Your task to perform on an android device: Go to Amazon Image 0: 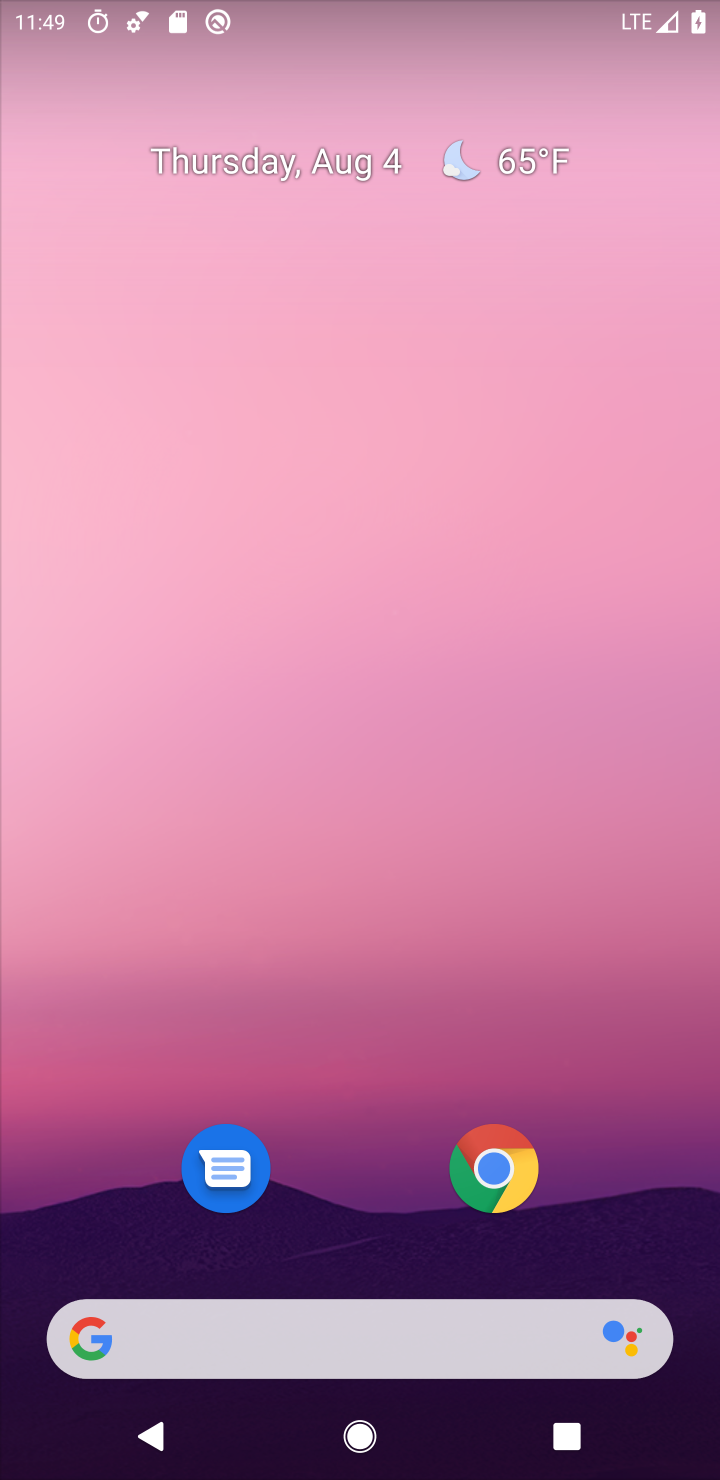
Step 0: press home button
Your task to perform on an android device: Go to Amazon Image 1: 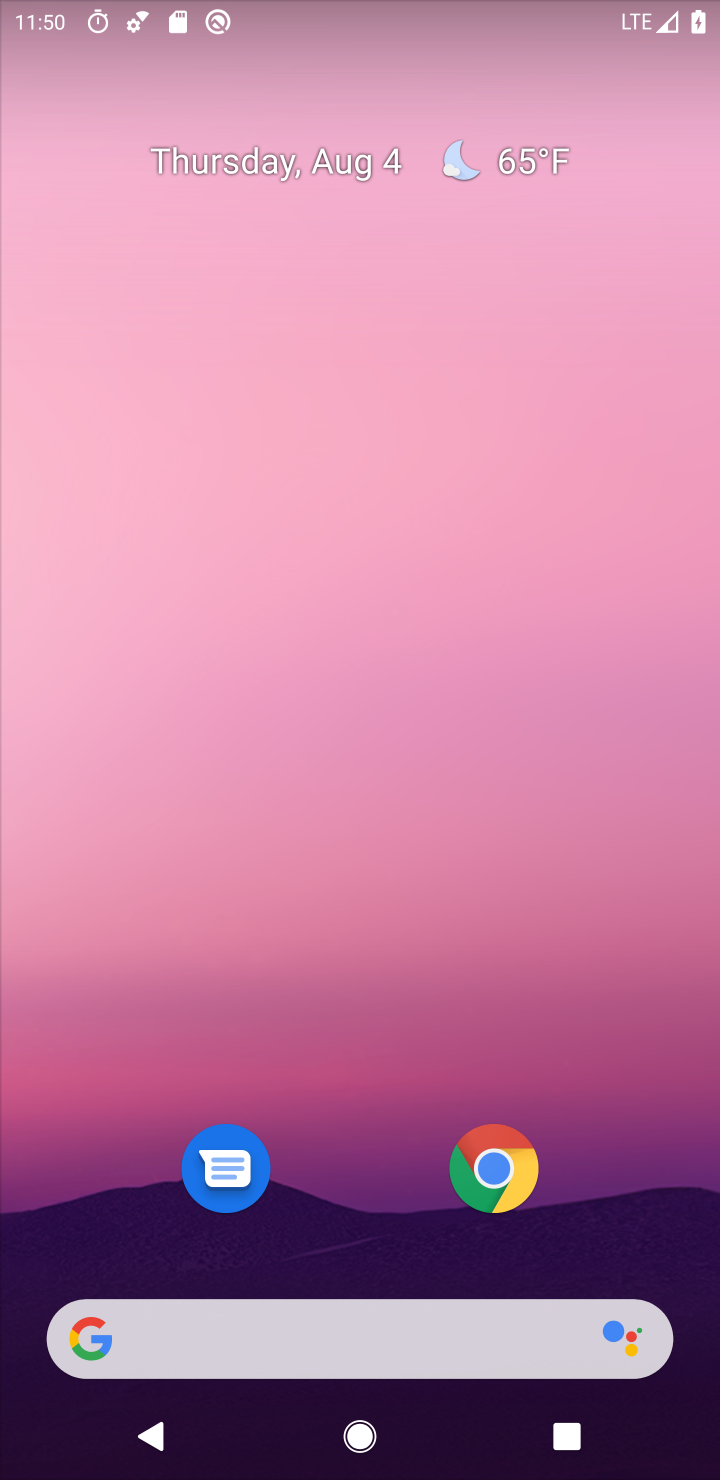
Step 1: click (487, 1181)
Your task to perform on an android device: Go to Amazon Image 2: 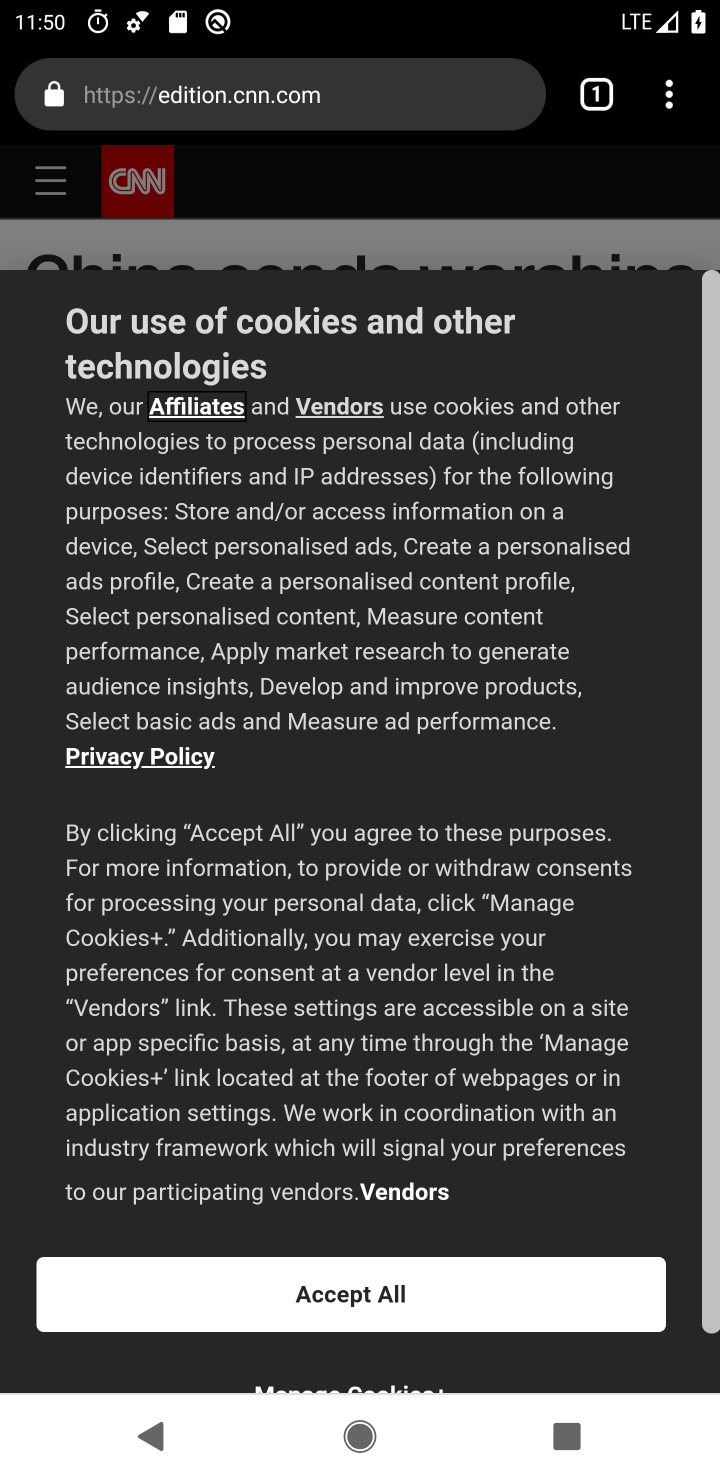
Step 2: click (335, 100)
Your task to perform on an android device: Go to Amazon Image 3: 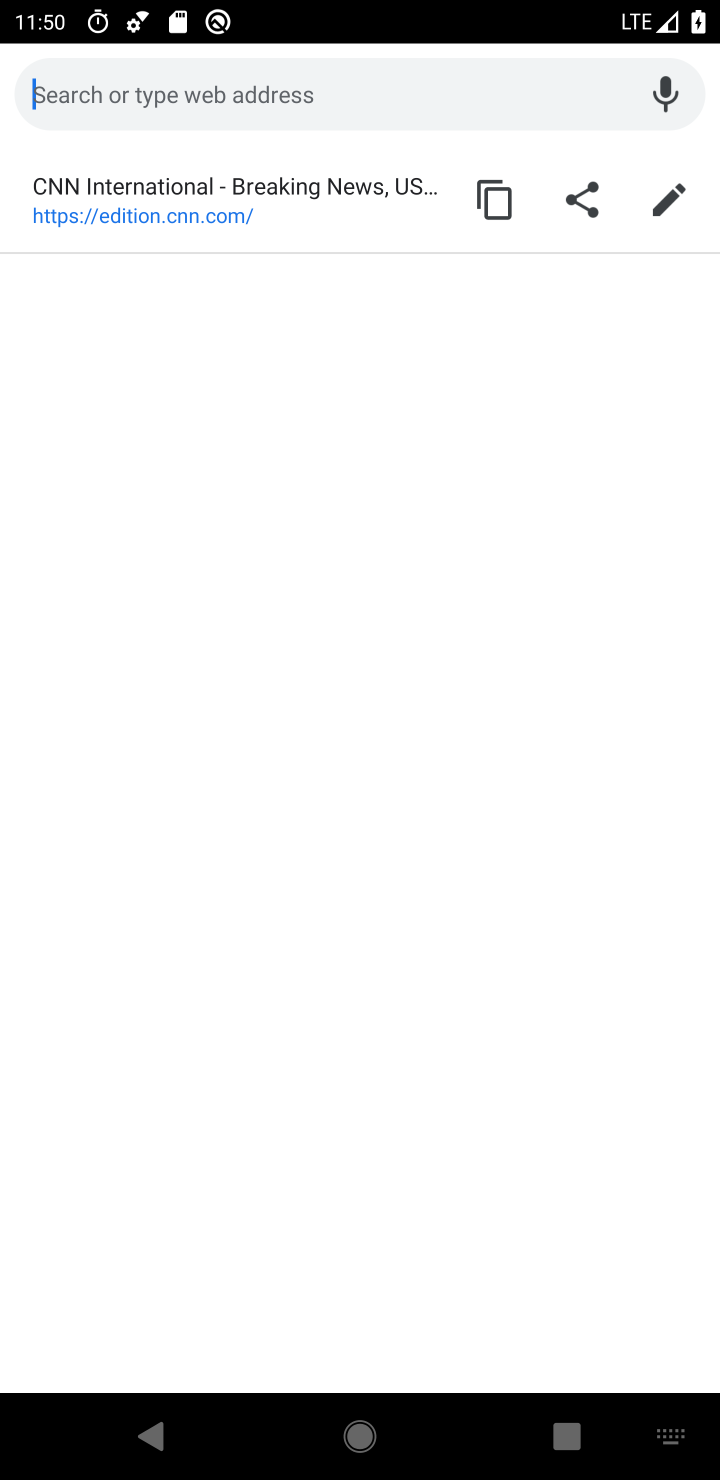
Step 3: type "amazon"
Your task to perform on an android device: Go to Amazon Image 4: 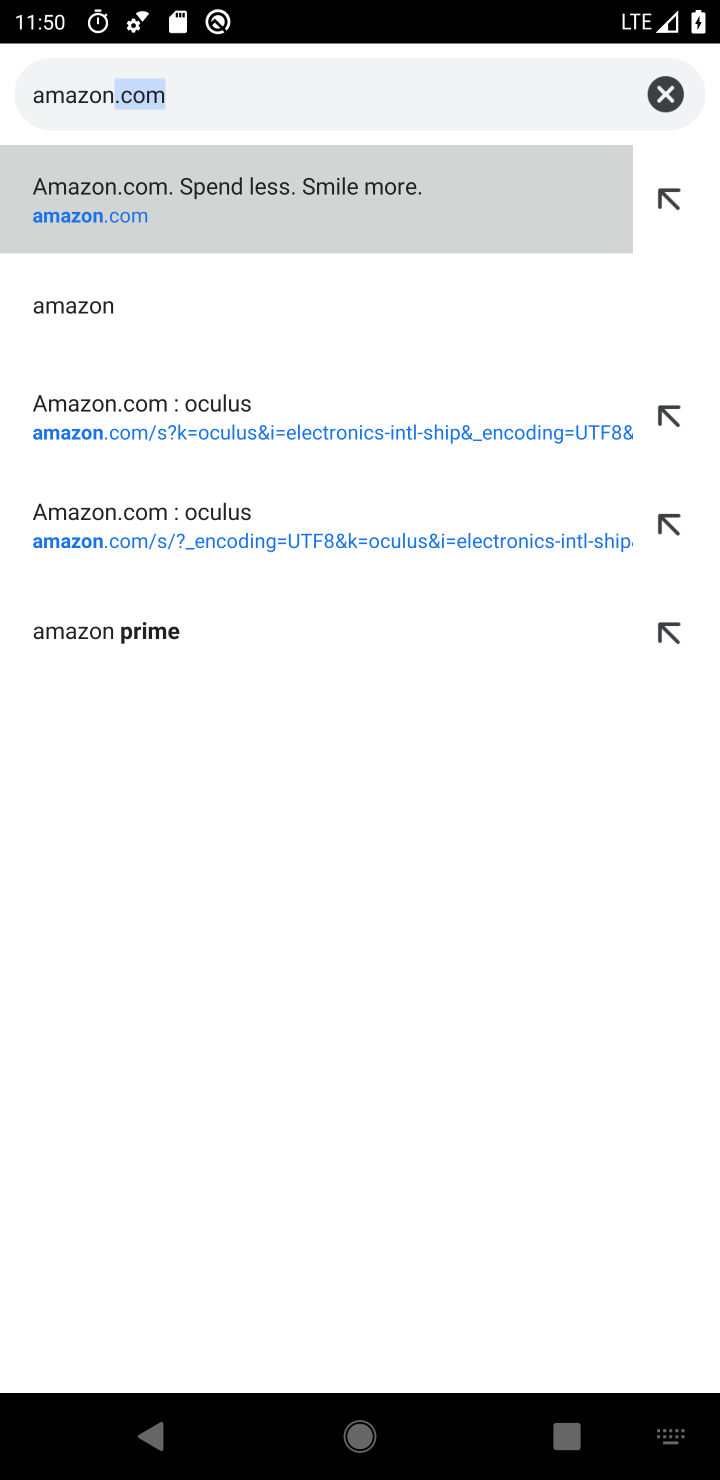
Step 4: click (277, 198)
Your task to perform on an android device: Go to Amazon Image 5: 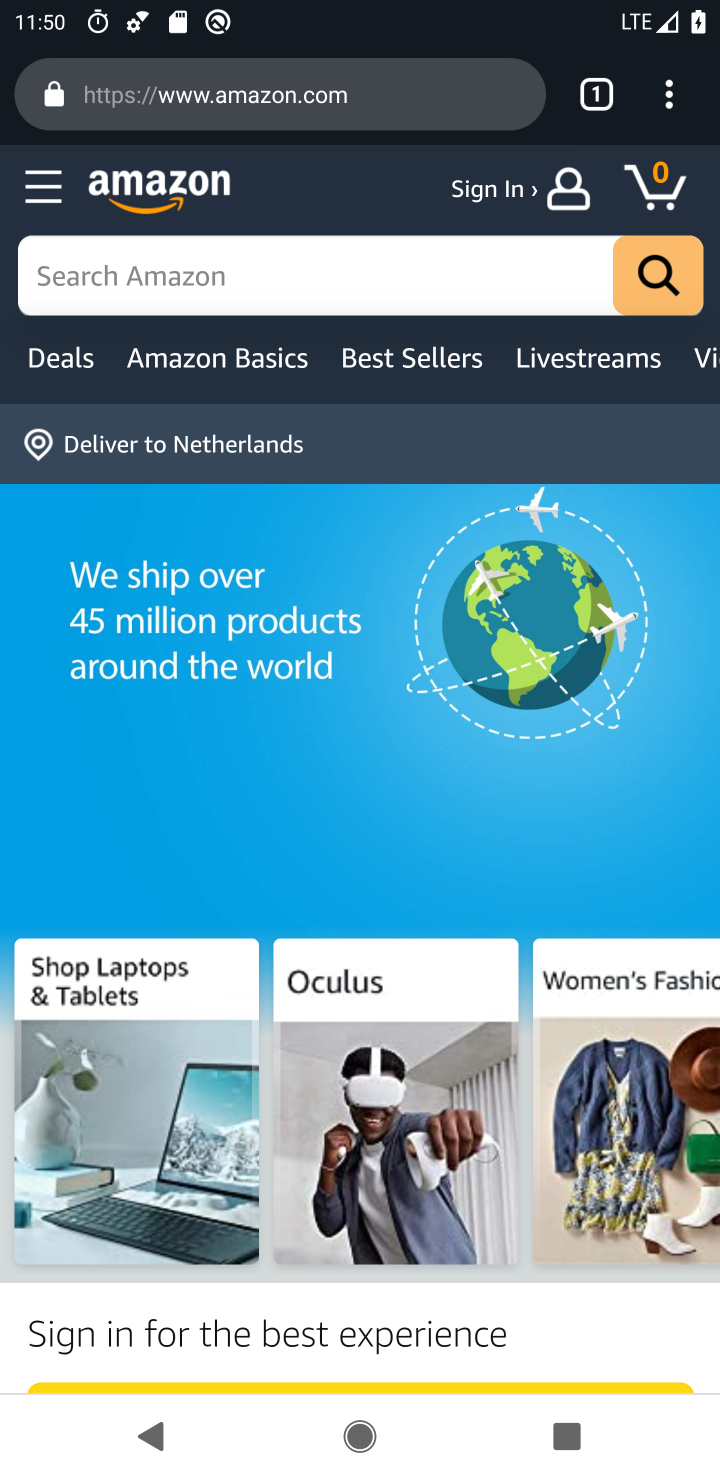
Step 5: task complete